Your task to perform on an android device: install app "Indeed Job Search" Image 0: 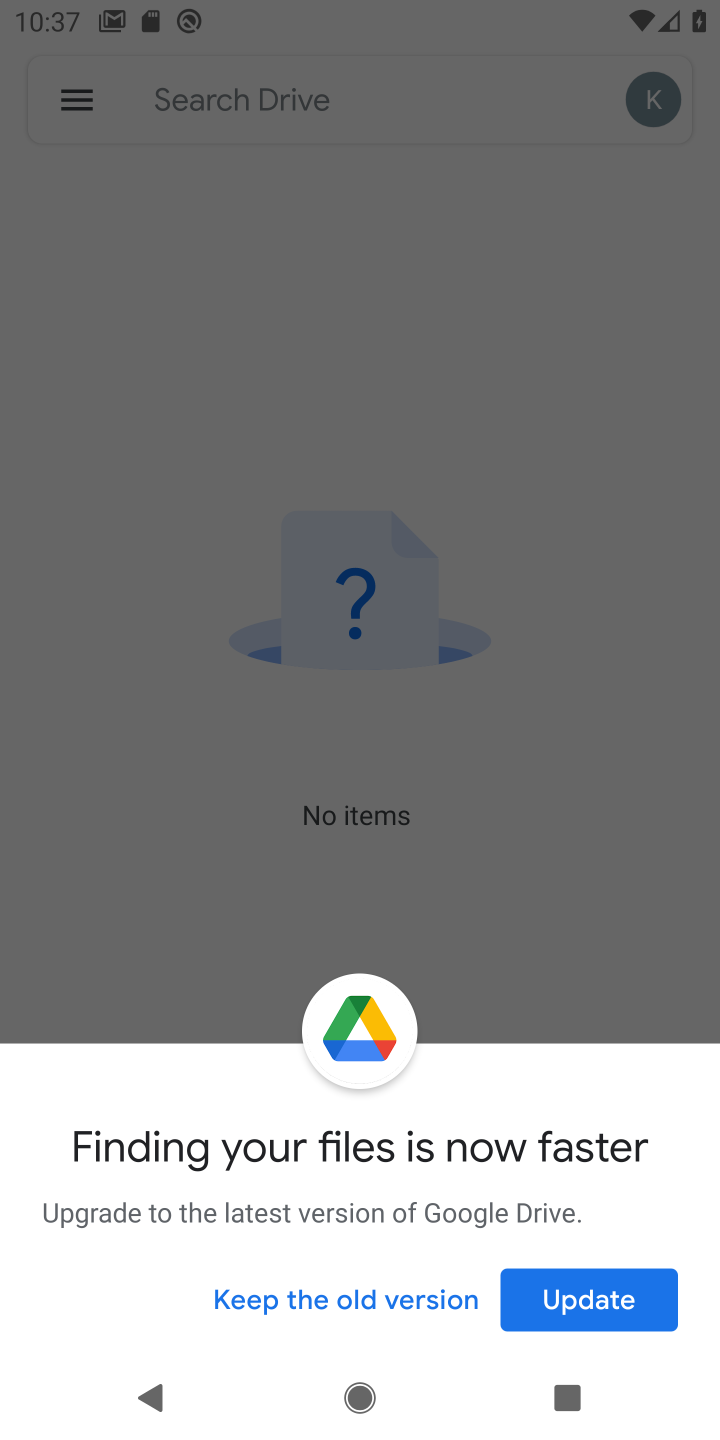
Step 0: press home button
Your task to perform on an android device: install app "Indeed Job Search" Image 1: 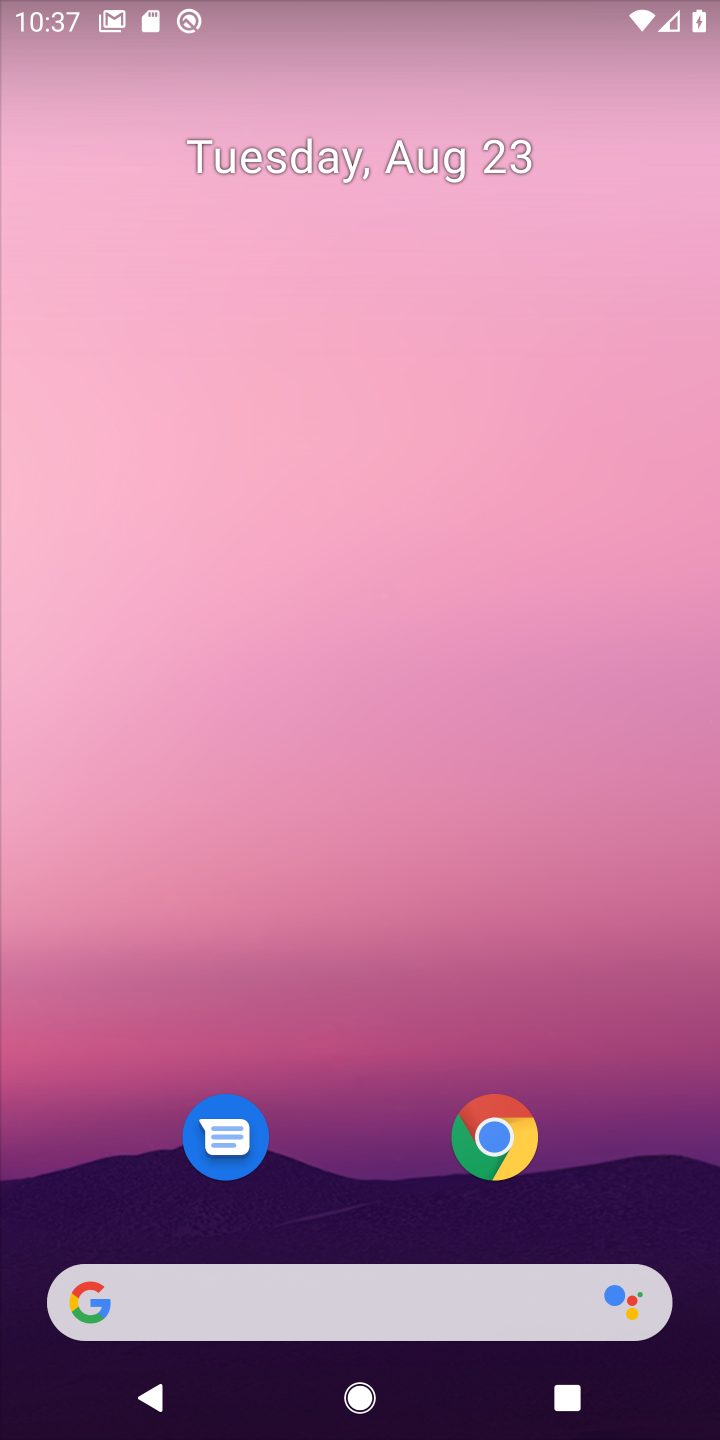
Step 1: drag from (287, 1282) to (350, 860)
Your task to perform on an android device: install app "Indeed Job Search" Image 2: 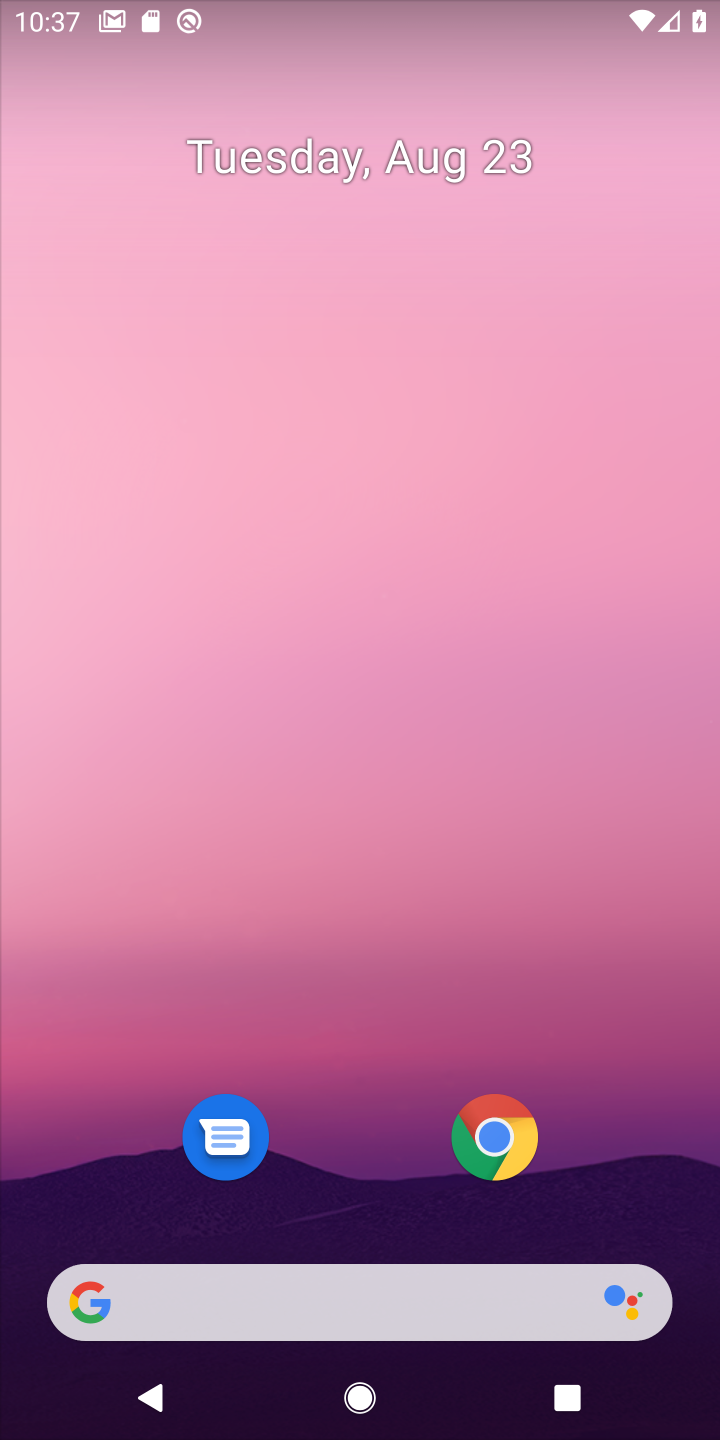
Step 2: drag from (339, 1111) to (360, 830)
Your task to perform on an android device: install app "Indeed Job Search" Image 3: 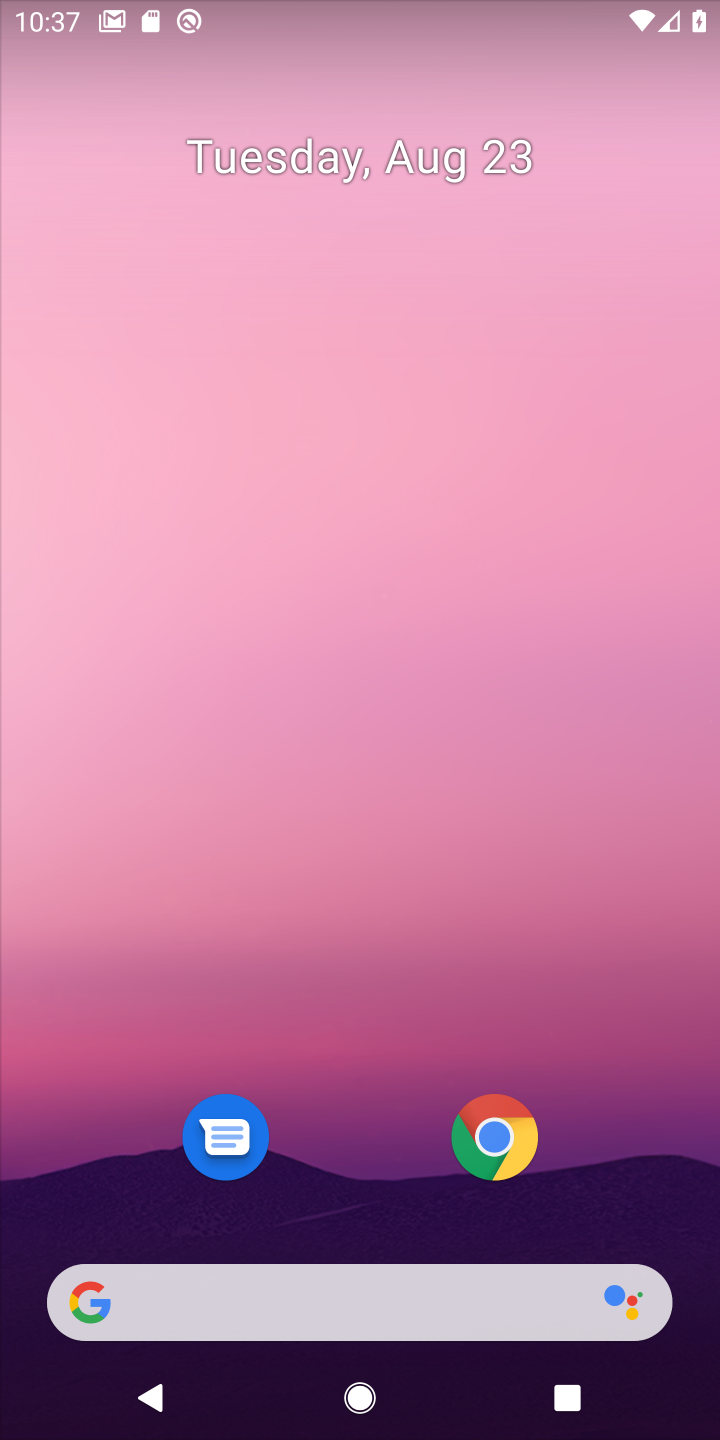
Step 3: drag from (377, 879) to (396, 7)
Your task to perform on an android device: install app "Indeed Job Search" Image 4: 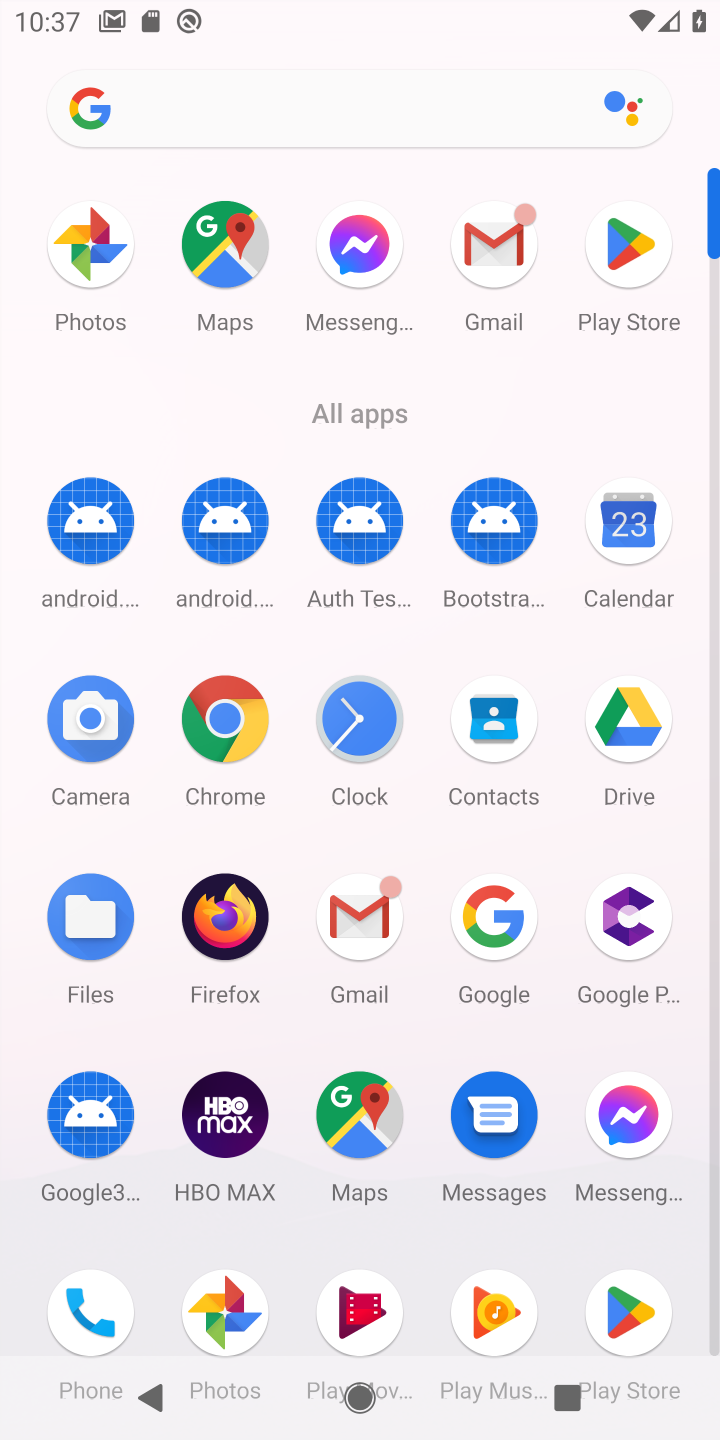
Step 4: click (648, 264)
Your task to perform on an android device: install app "Indeed Job Search" Image 5: 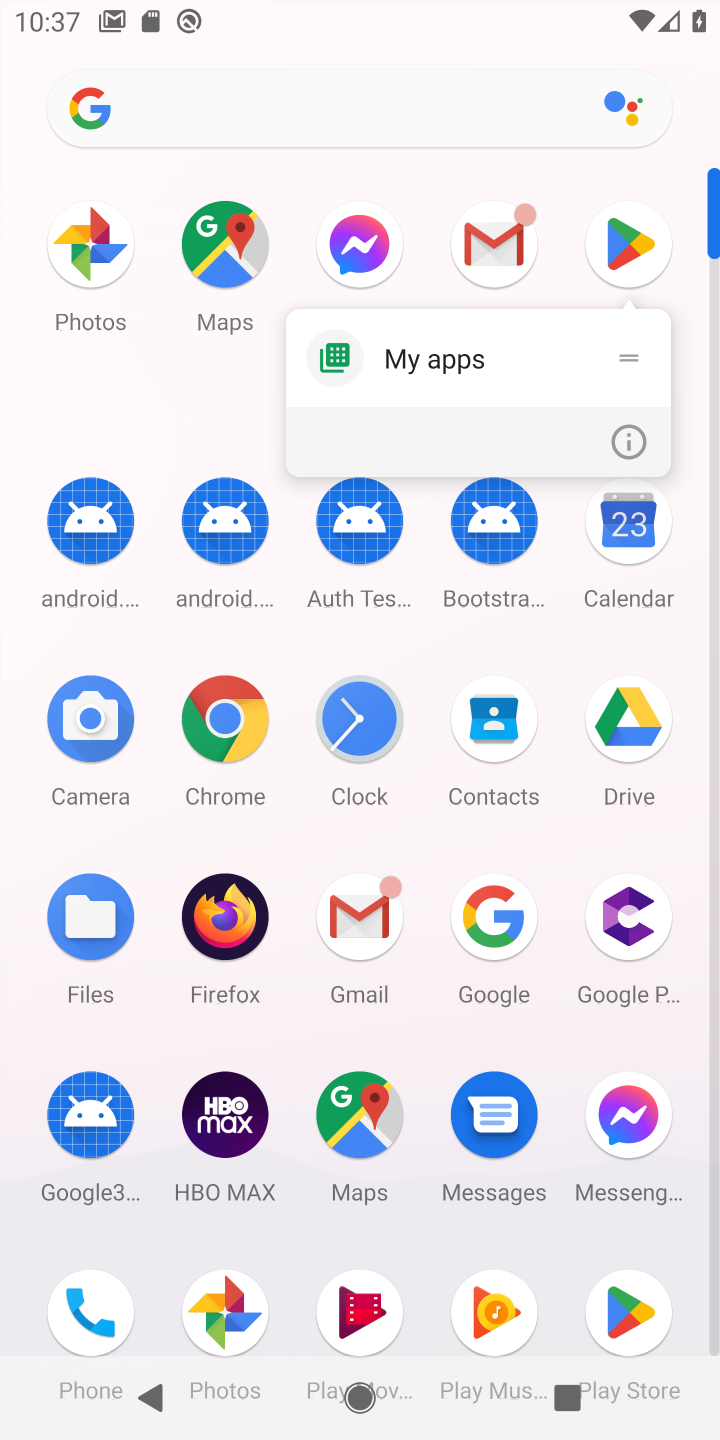
Step 5: click (604, 233)
Your task to perform on an android device: install app "Indeed Job Search" Image 6: 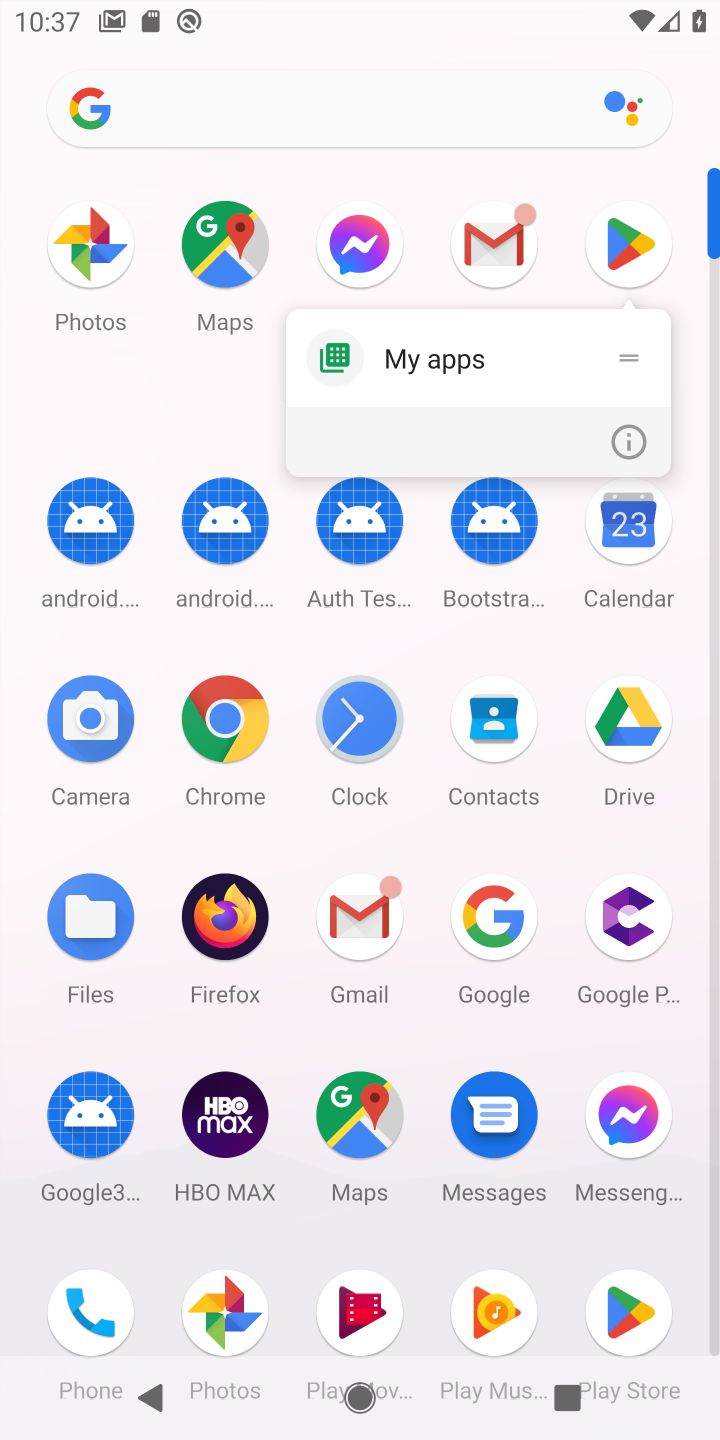
Step 6: click (645, 267)
Your task to perform on an android device: install app "Indeed Job Search" Image 7: 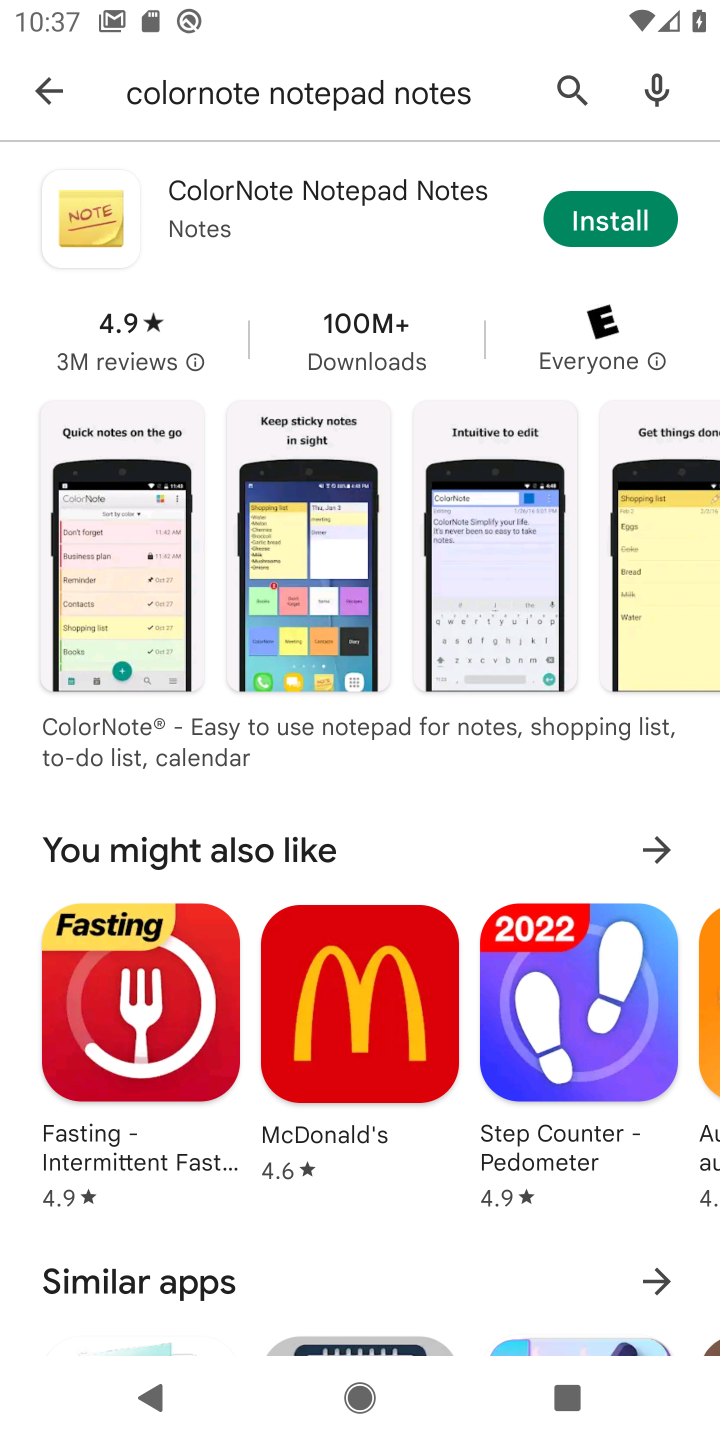
Step 7: click (158, 81)
Your task to perform on an android device: install app "Indeed Job Search" Image 8: 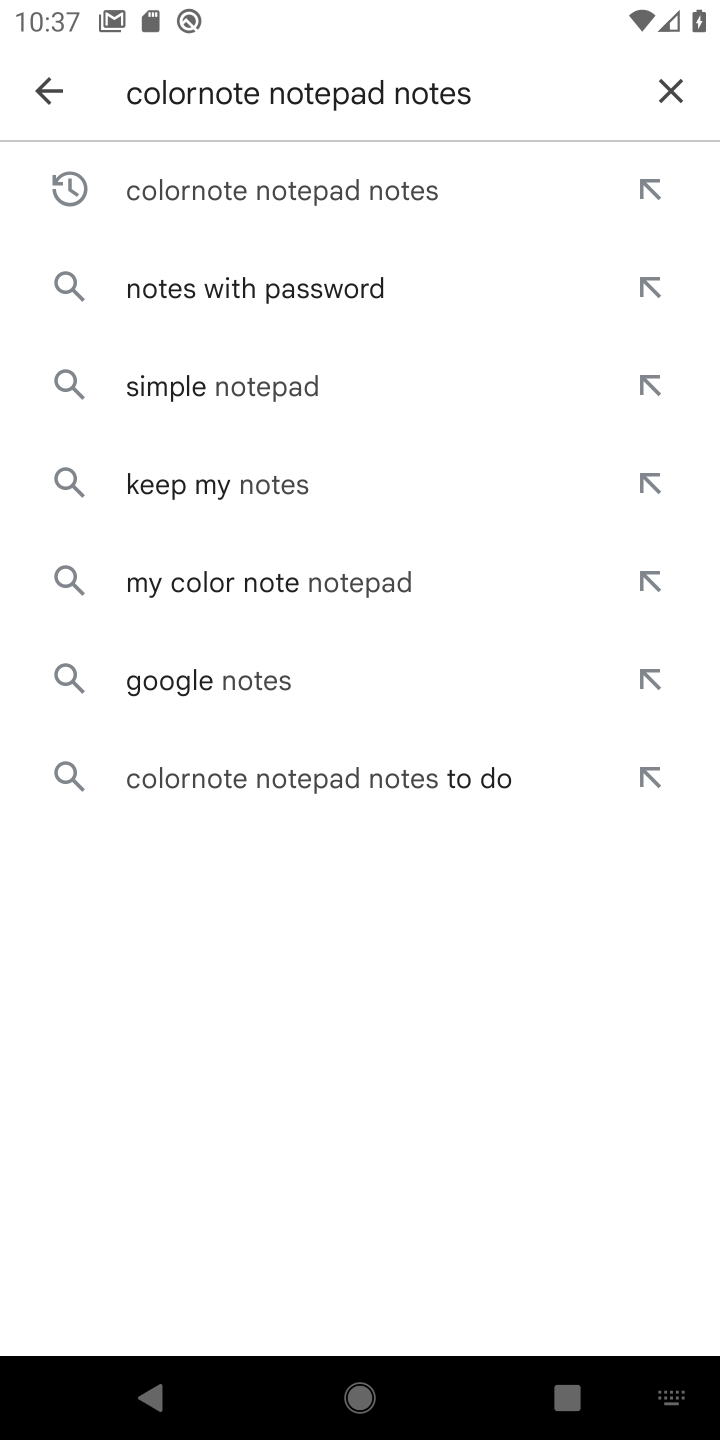
Step 8: click (680, 95)
Your task to perform on an android device: install app "Indeed Job Search" Image 9: 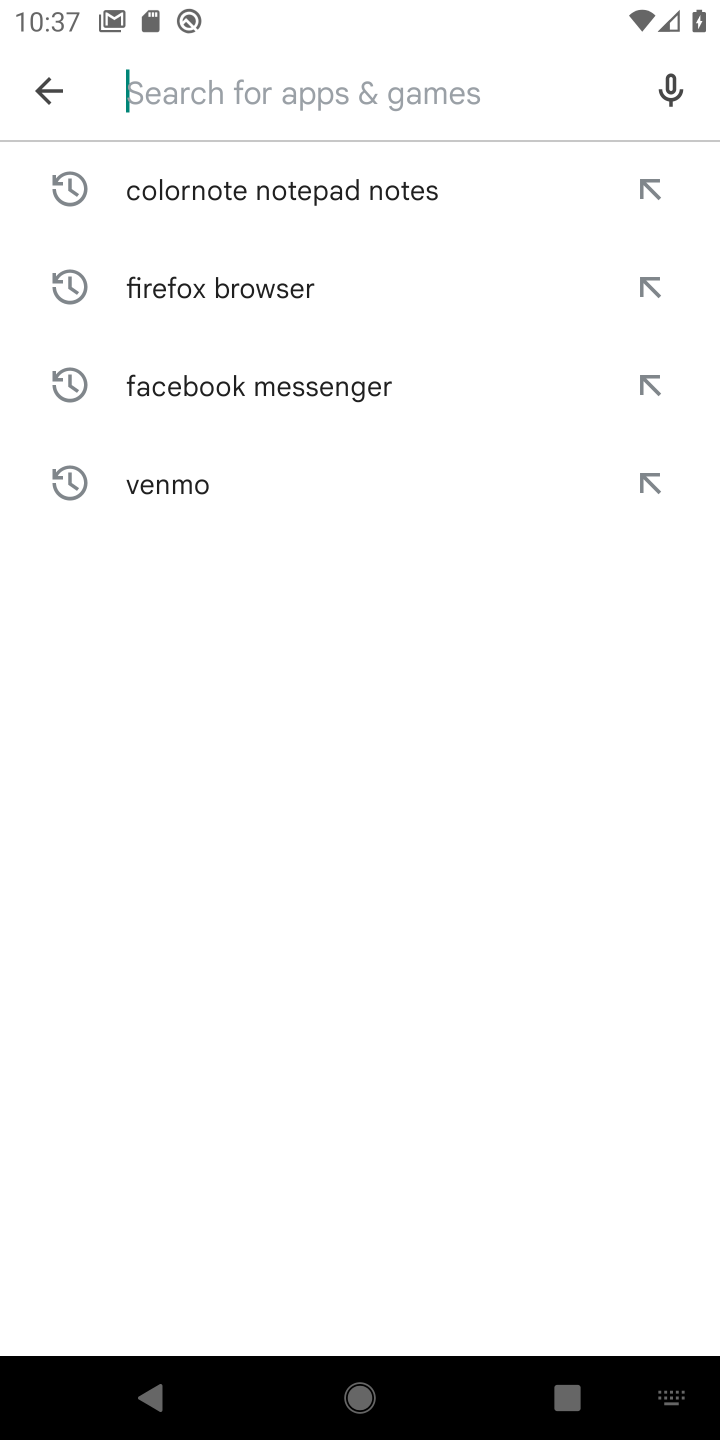
Step 9: type "indeed job search"
Your task to perform on an android device: install app "Indeed Job Search" Image 10: 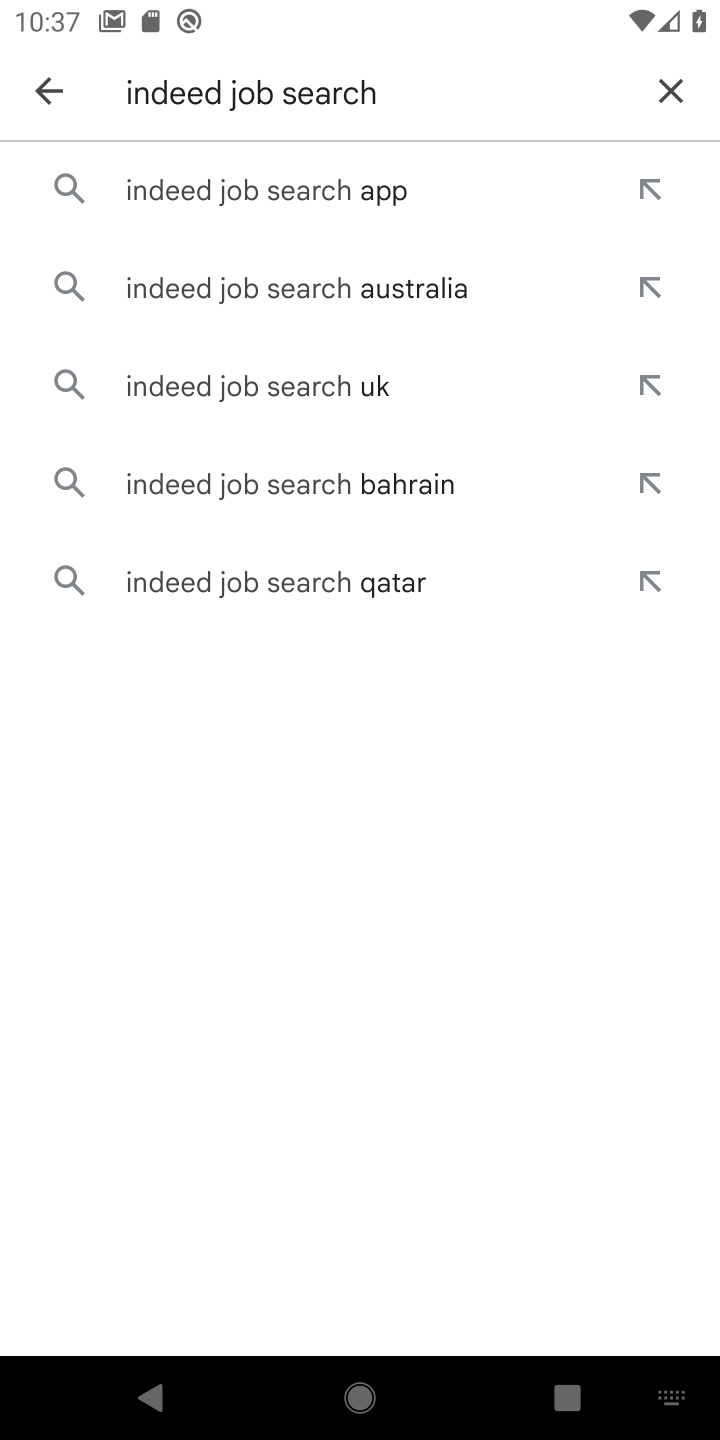
Step 10: click (208, 173)
Your task to perform on an android device: install app "Indeed Job Search" Image 11: 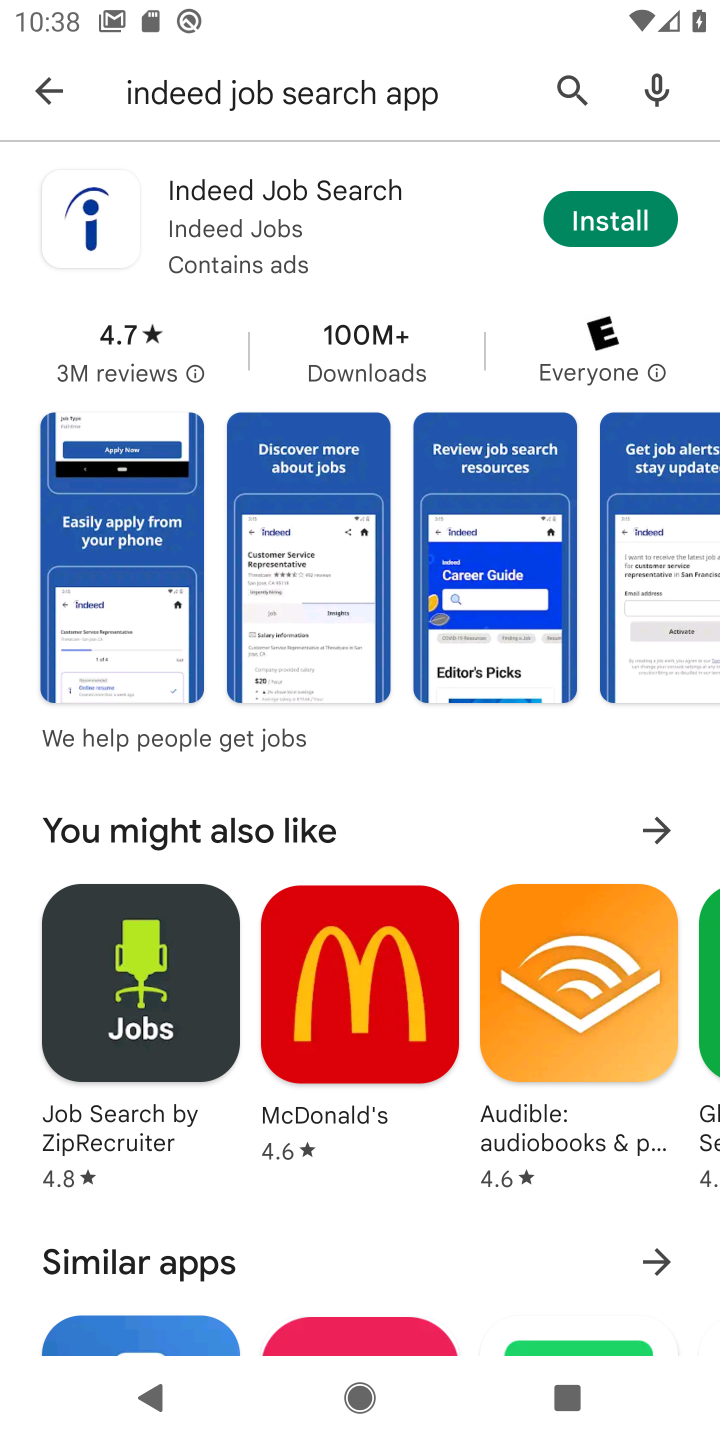
Step 11: click (588, 209)
Your task to perform on an android device: install app "Indeed Job Search" Image 12: 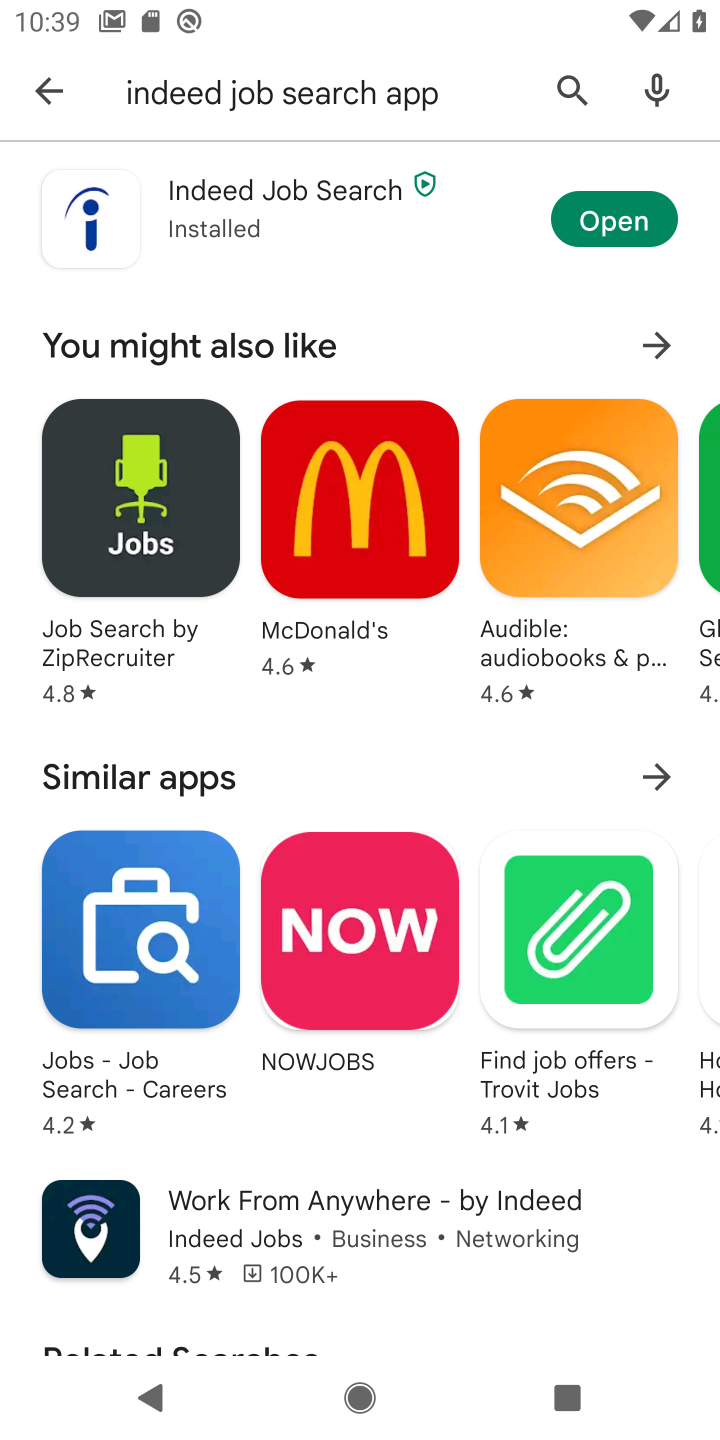
Step 12: task complete